Your task to perform on an android device: Show me productivity apps on the Play Store Image 0: 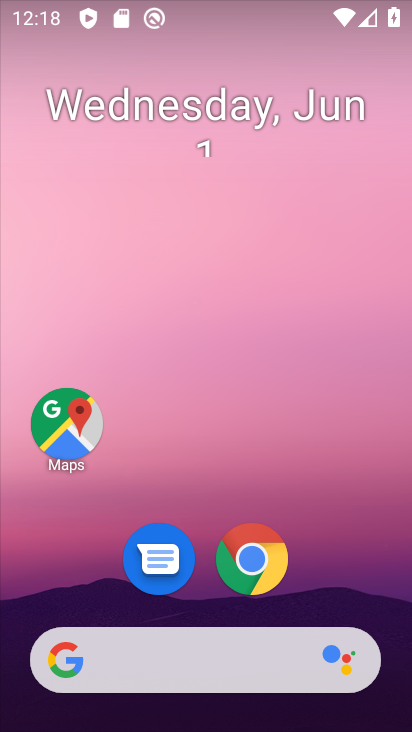
Step 0: drag from (336, 582) to (324, 143)
Your task to perform on an android device: Show me productivity apps on the Play Store Image 1: 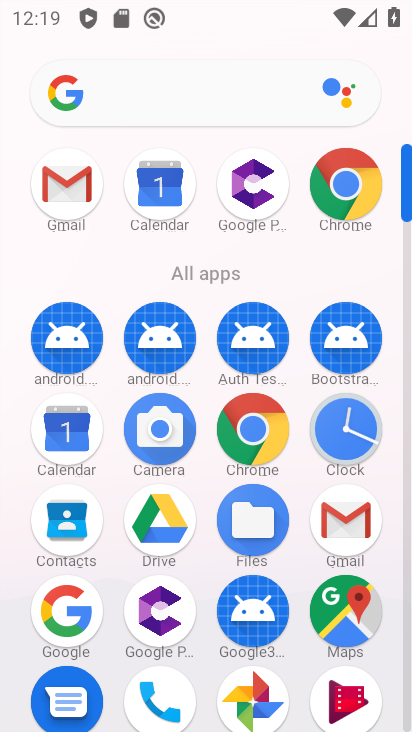
Step 1: drag from (187, 578) to (209, 313)
Your task to perform on an android device: Show me productivity apps on the Play Store Image 2: 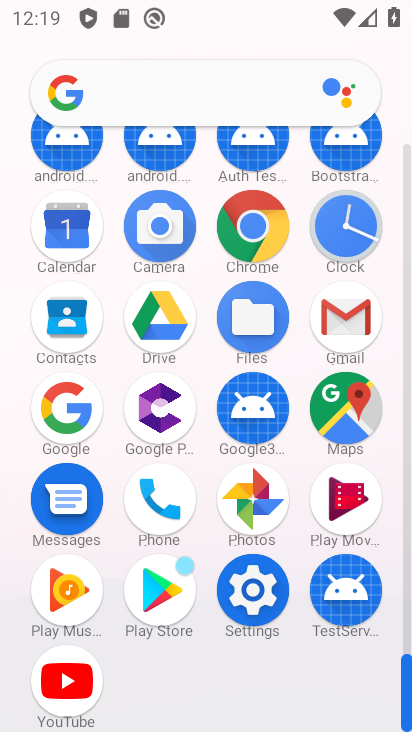
Step 2: click (165, 585)
Your task to perform on an android device: Show me productivity apps on the Play Store Image 3: 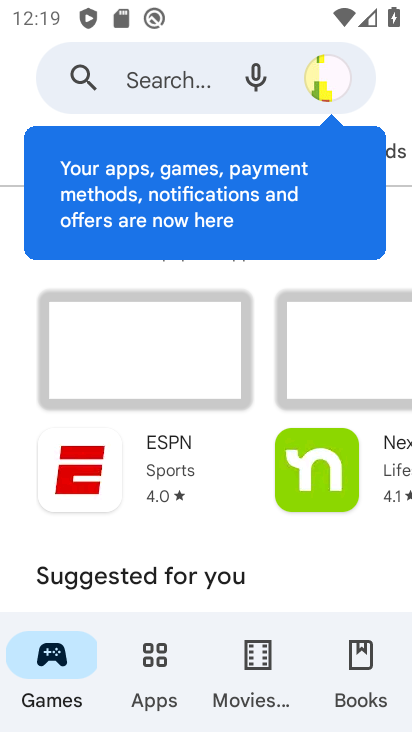
Step 3: click (157, 649)
Your task to perform on an android device: Show me productivity apps on the Play Store Image 4: 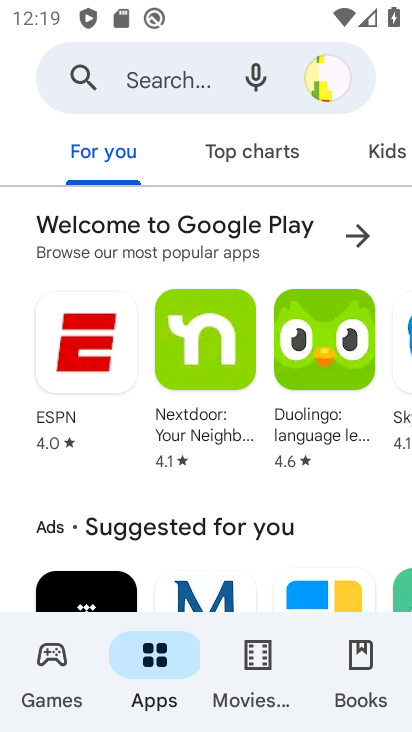
Step 4: task complete